Your task to perform on an android device: Play the new Demi Lovato video on YouTube Image 0: 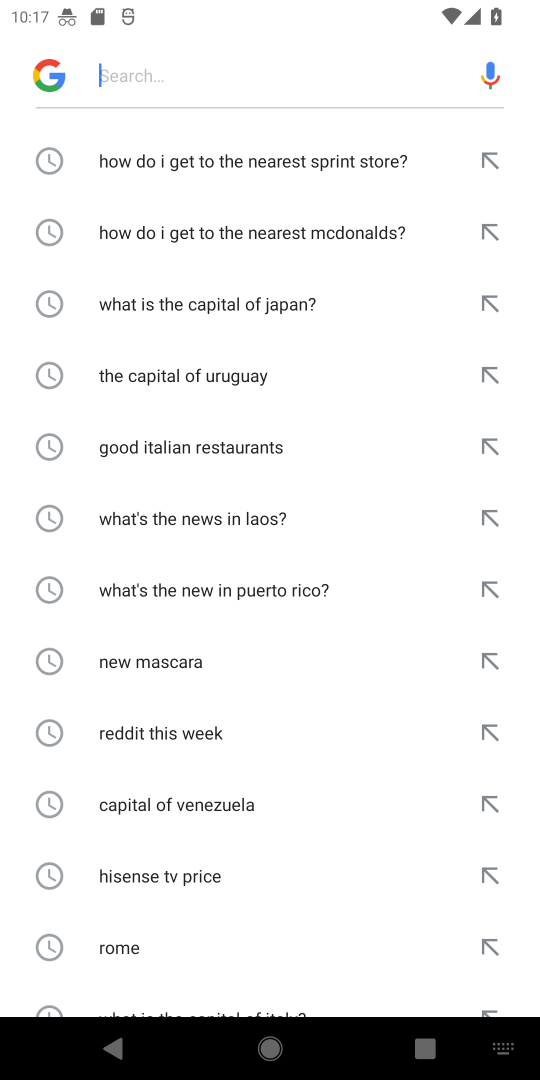
Step 0: press home button
Your task to perform on an android device: Play the new Demi Lovato video on YouTube Image 1: 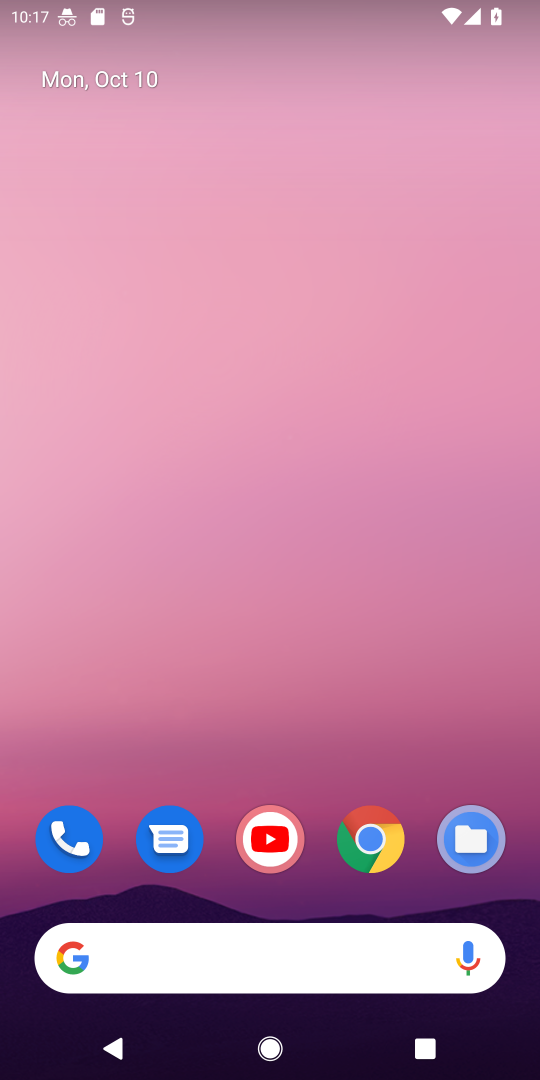
Step 1: drag from (297, 901) to (385, 209)
Your task to perform on an android device: Play the new Demi Lovato video on YouTube Image 2: 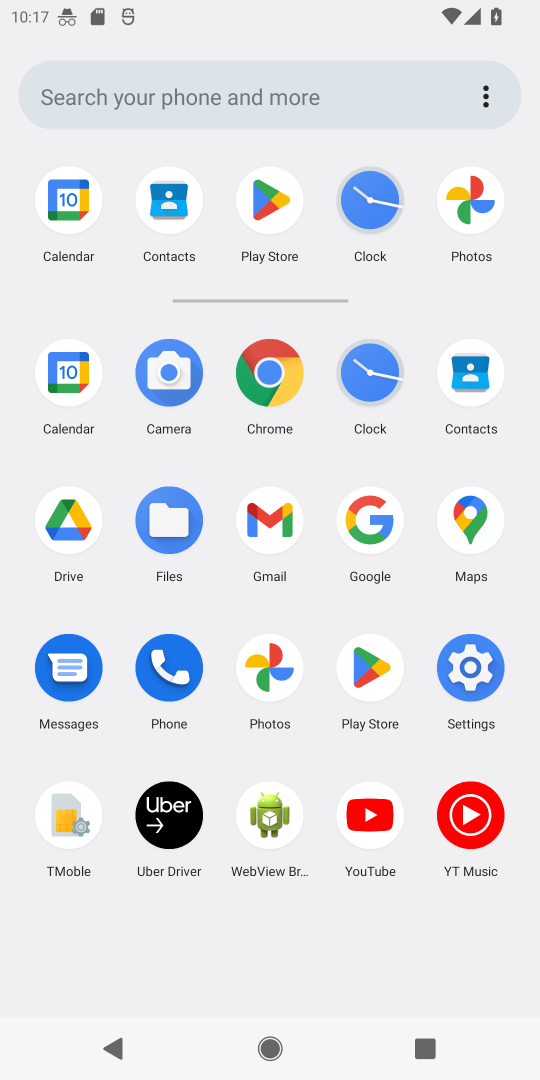
Step 2: click (376, 800)
Your task to perform on an android device: Play the new Demi Lovato video on YouTube Image 3: 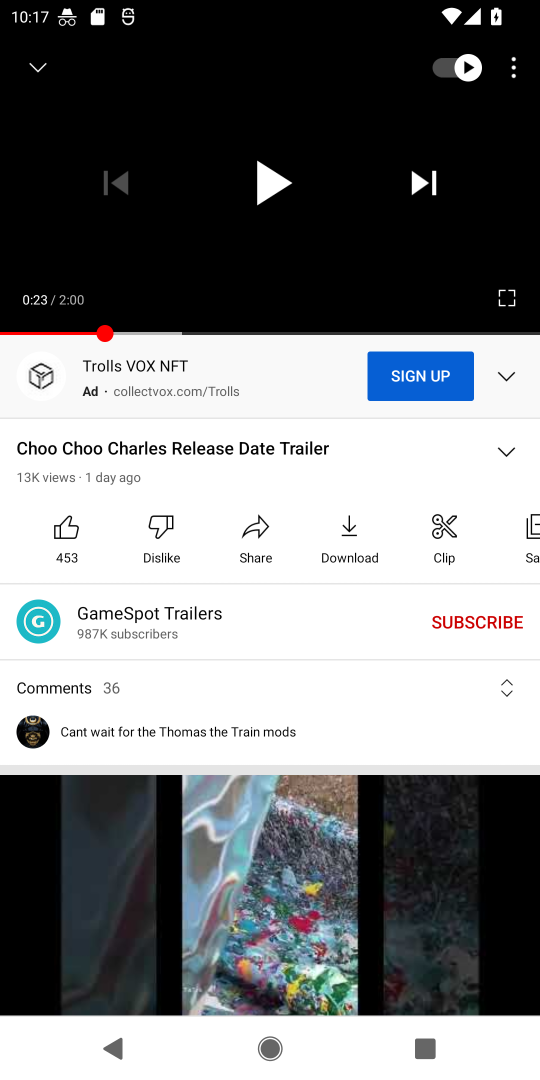
Step 3: drag from (317, 110) to (247, 910)
Your task to perform on an android device: Play the new Demi Lovato video on YouTube Image 4: 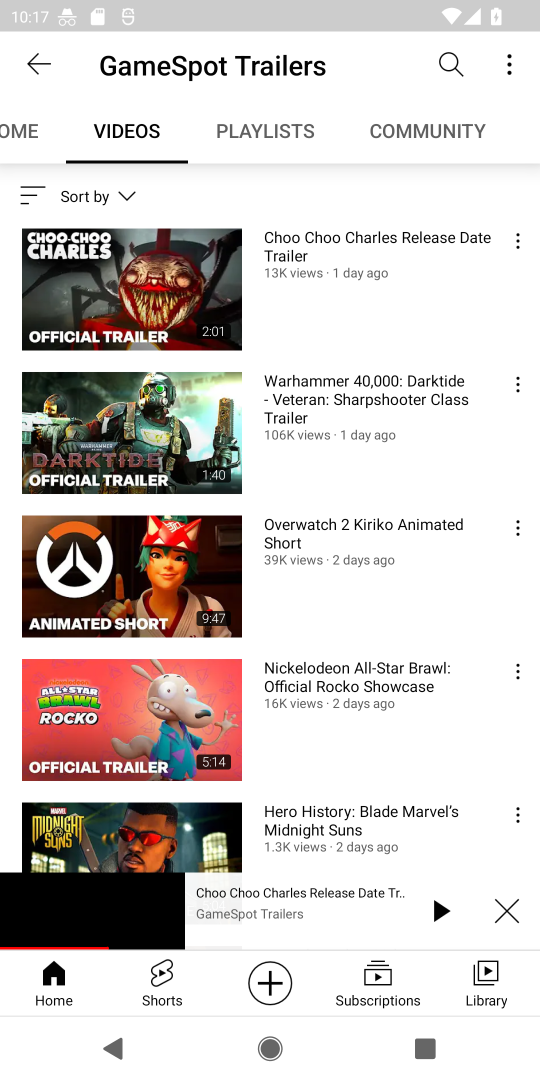
Step 4: press back button
Your task to perform on an android device: Play the new Demi Lovato video on YouTube Image 5: 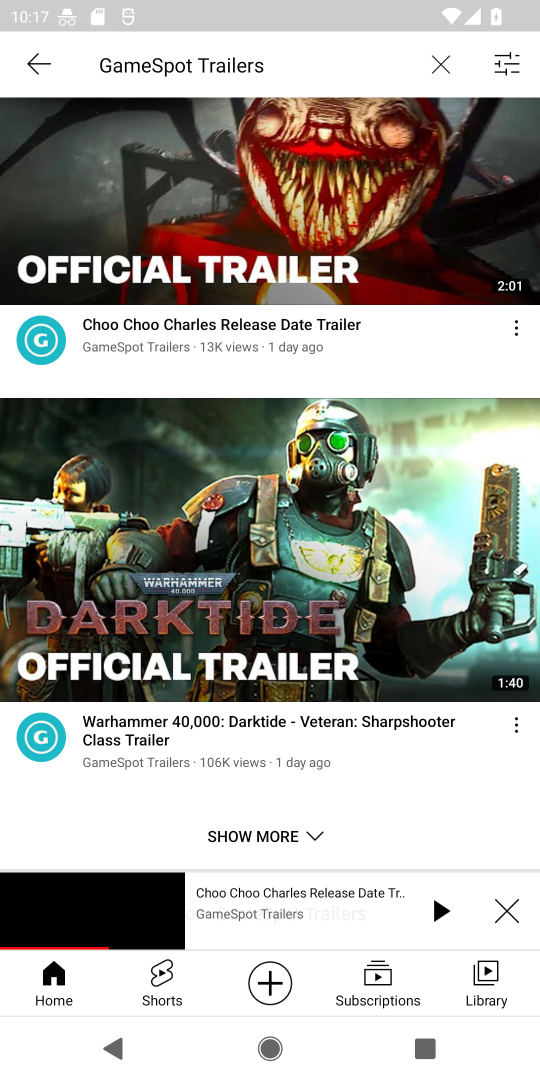
Step 5: click (440, 64)
Your task to perform on an android device: Play the new Demi Lovato video on YouTube Image 6: 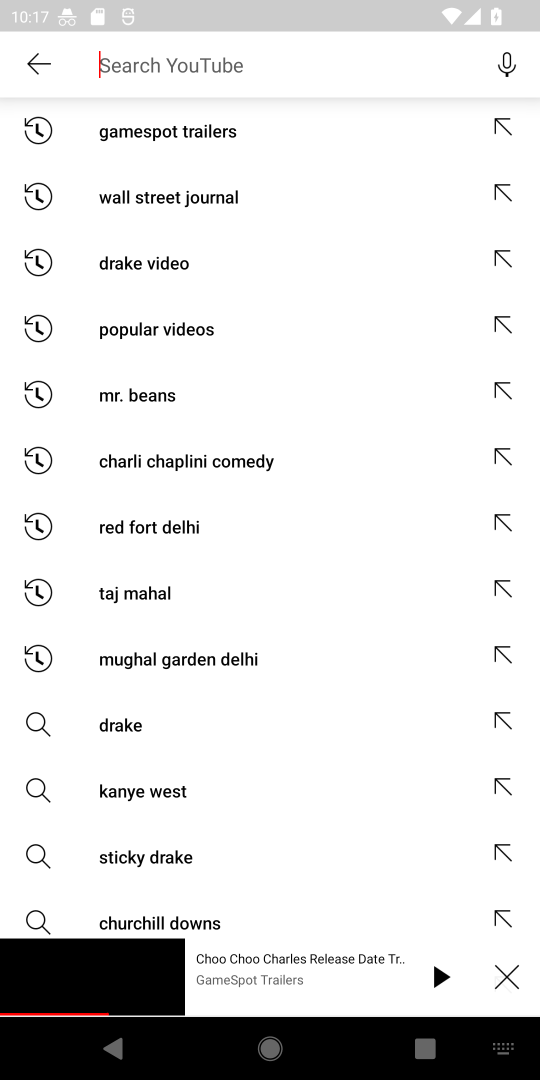
Step 6: type "Demi Lovato"
Your task to perform on an android device: Play the new Demi Lovato video on YouTube Image 7: 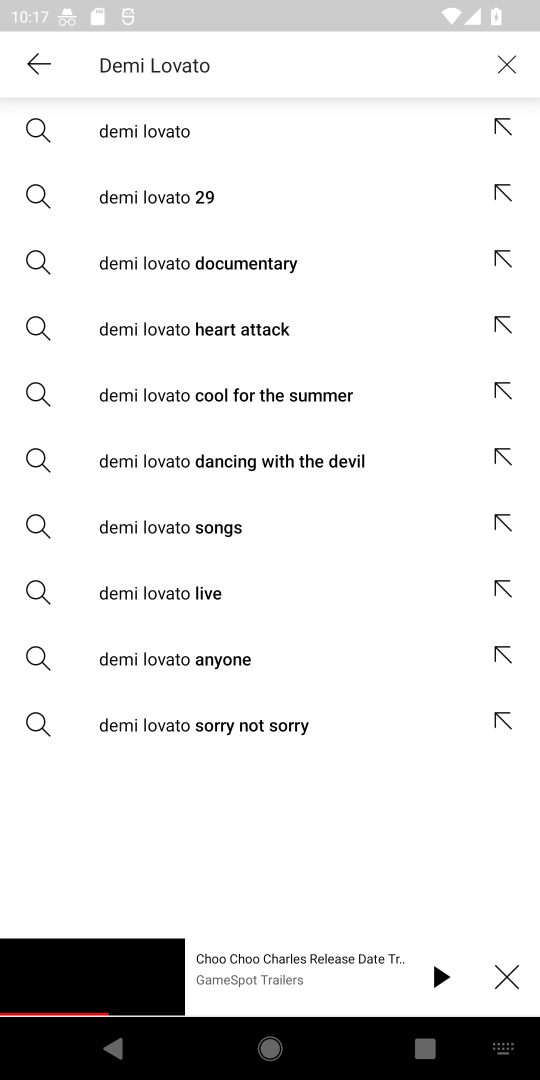
Step 7: press enter
Your task to perform on an android device: Play the new Demi Lovato video on YouTube Image 8: 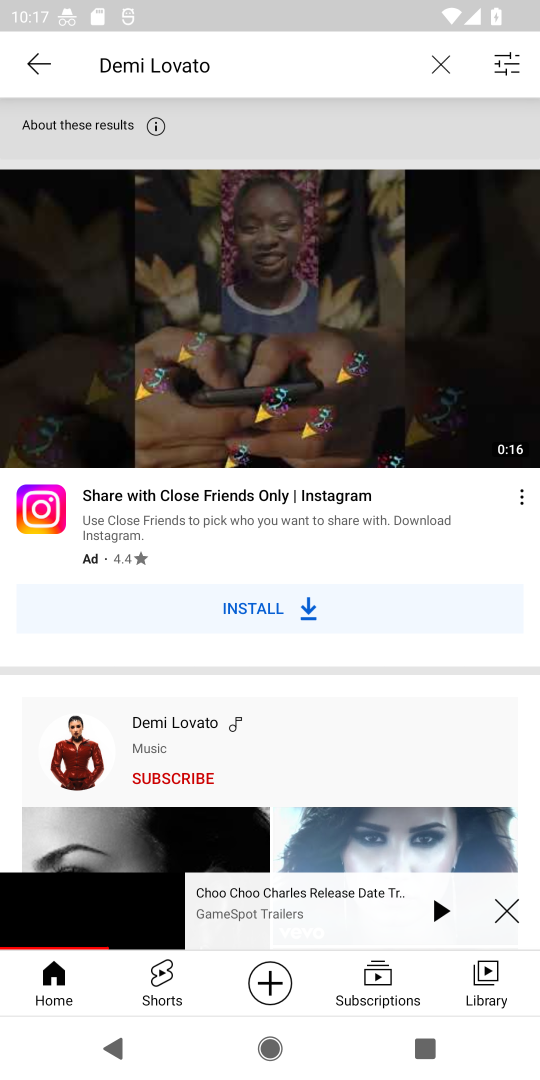
Step 8: click (95, 733)
Your task to perform on an android device: Play the new Demi Lovato video on YouTube Image 9: 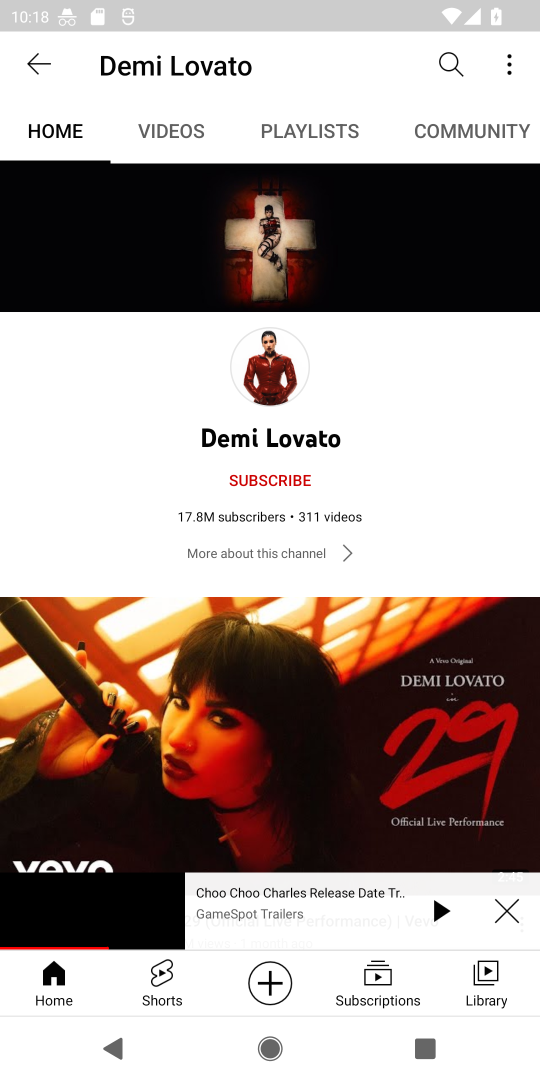
Step 9: click (179, 139)
Your task to perform on an android device: Play the new Demi Lovato video on YouTube Image 10: 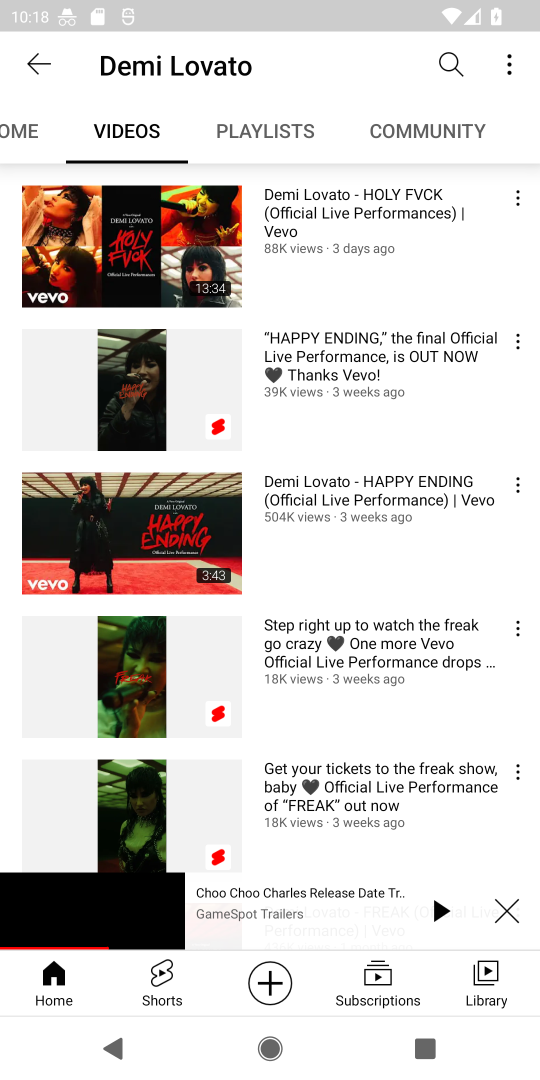
Step 10: click (167, 207)
Your task to perform on an android device: Play the new Demi Lovato video on YouTube Image 11: 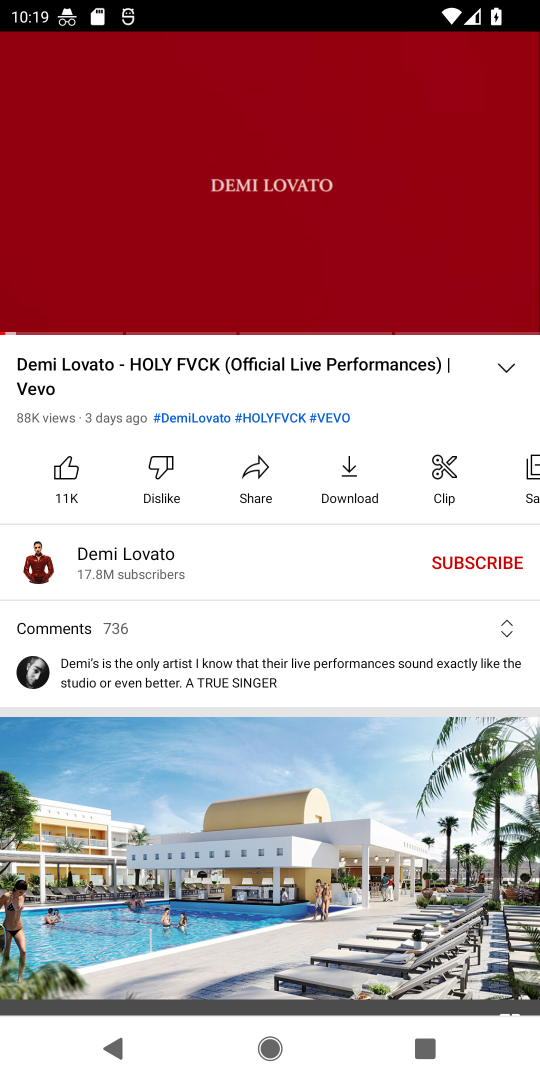
Step 11: task complete